Your task to perform on an android device: Do I have any events this weekend? Image 0: 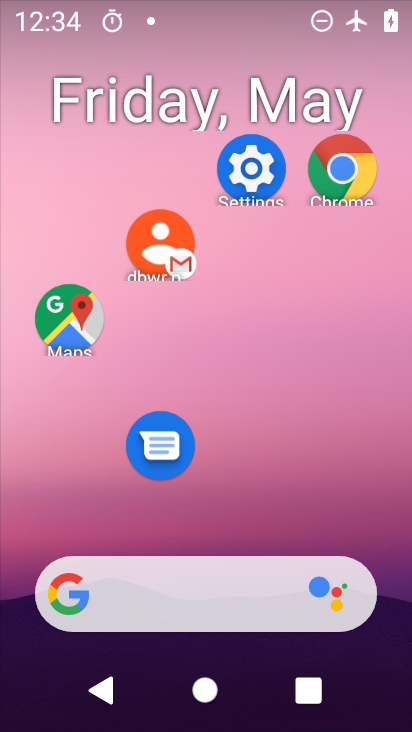
Step 0: click (287, 119)
Your task to perform on an android device: Do I have any events this weekend? Image 1: 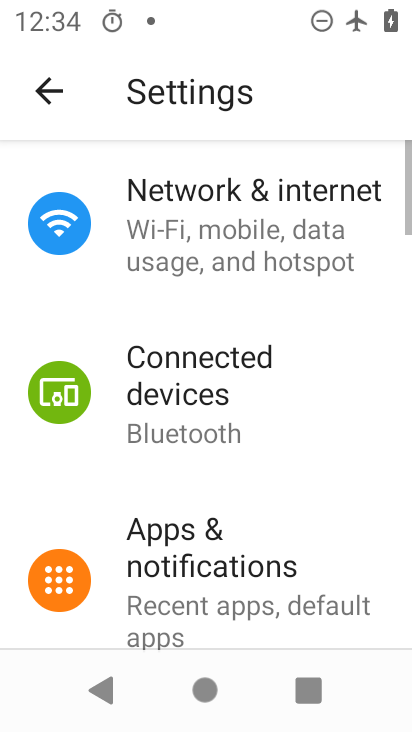
Step 1: drag from (205, 536) to (226, 200)
Your task to perform on an android device: Do I have any events this weekend? Image 2: 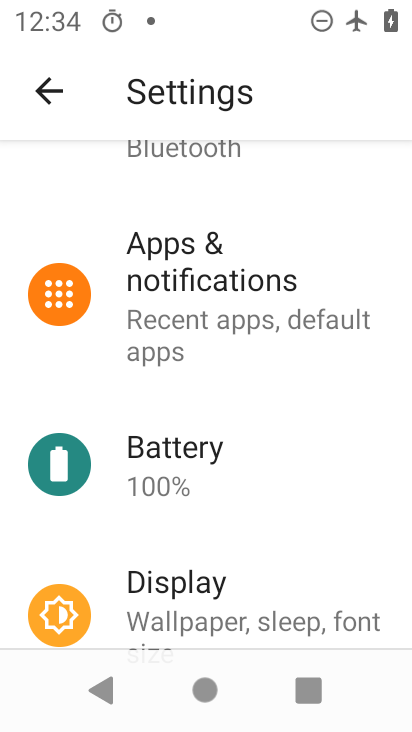
Step 2: drag from (239, 553) to (245, 215)
Your task to perform on an android device: Do I have any events this weekend? Image 3: 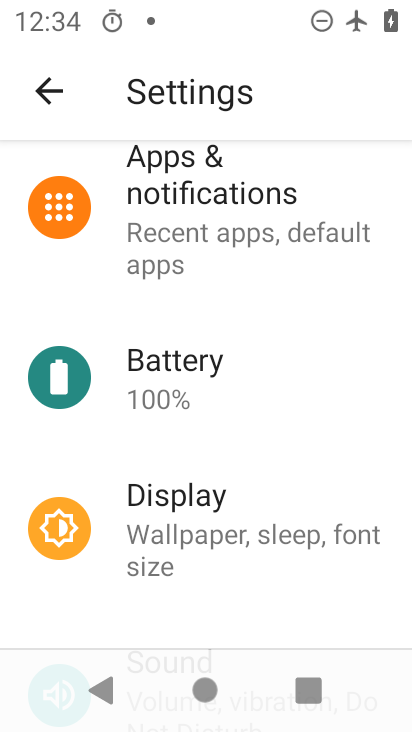
Step 3: press home button
Your task to perform on an android device: Do I have any events this weekend? Image 4: 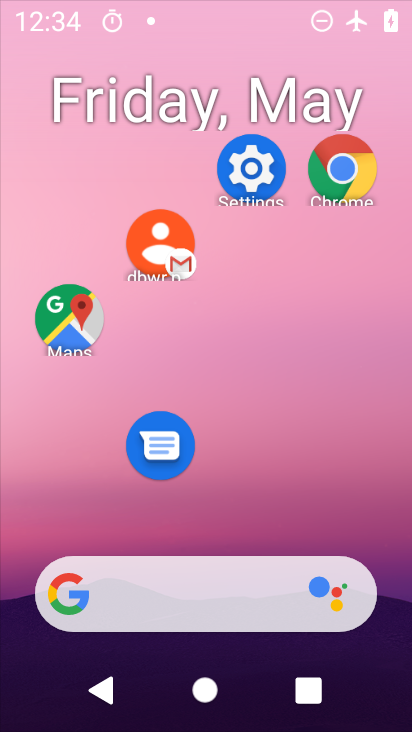
Step 4: drag from (218, 383) to (262, 129)
Your task to perform on an android device: Do I have any events this weekend? Image 5: 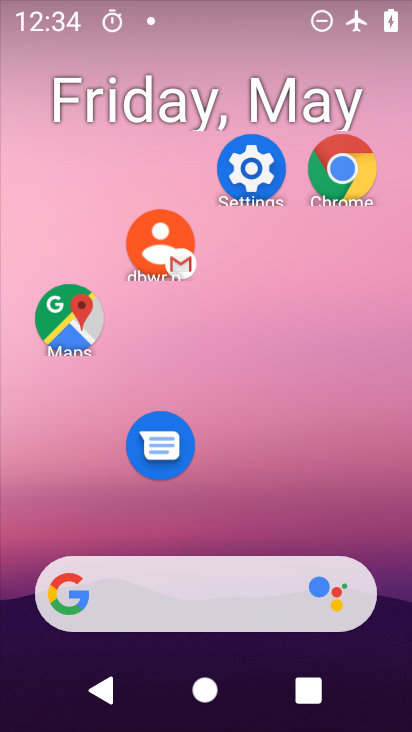
Step 5: drag from (208, 392) to (229, 172)
Your task to perform on an android device: Do I have any events this weekend? Image 6: 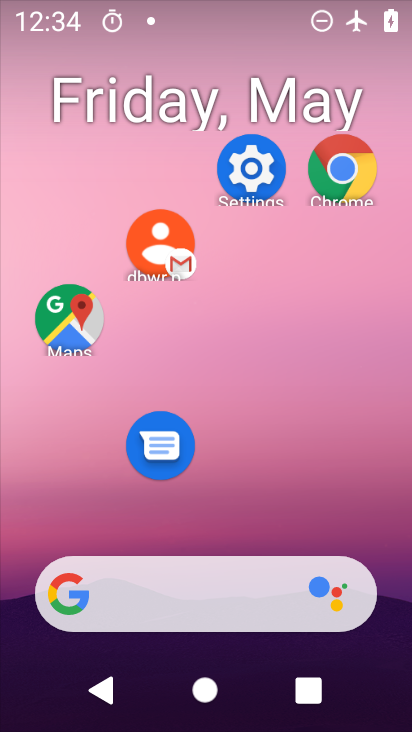
Step 6: drag from (212, 468) to (256, 76)
Your task to perform on an android device: Do I have any events this weekend? Image 7: 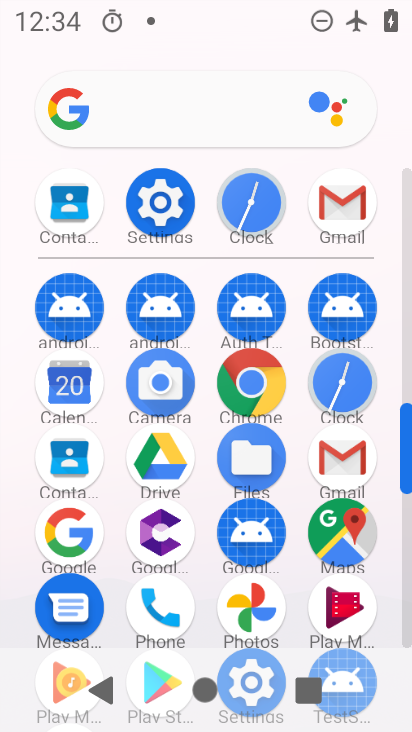
Step 7: click (58, 384)
Your task to perform on an android device: Do I have any events this weekend? Image 8: 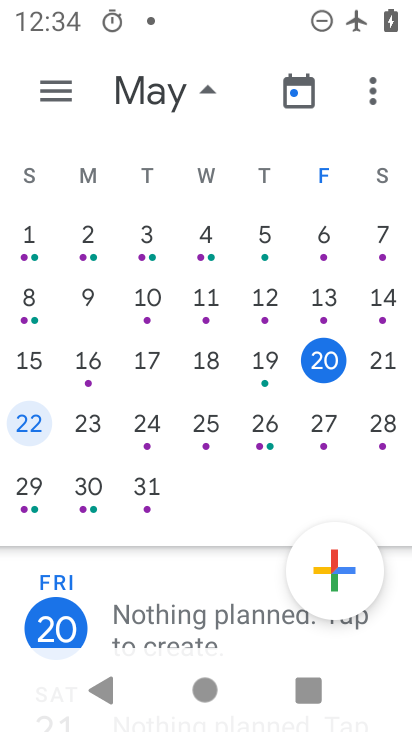
Step 8: click (306, 362)
Your task to perform on an android device: Do I have any events this weekend? Image 9: 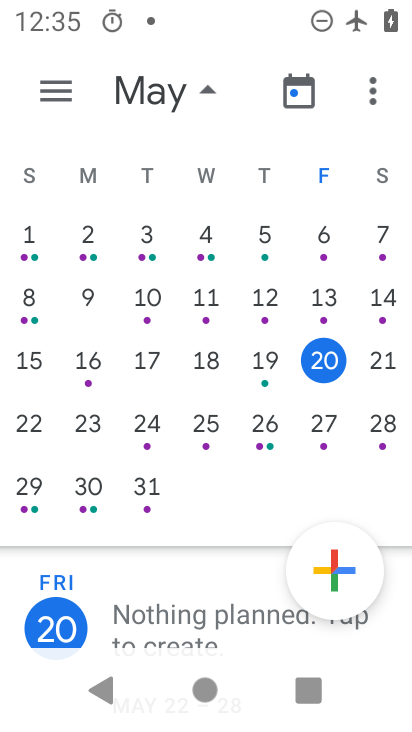
Step 9: click (195, 434)
Your task to perform on an android device: Do I have any events this weekend? Image 10: 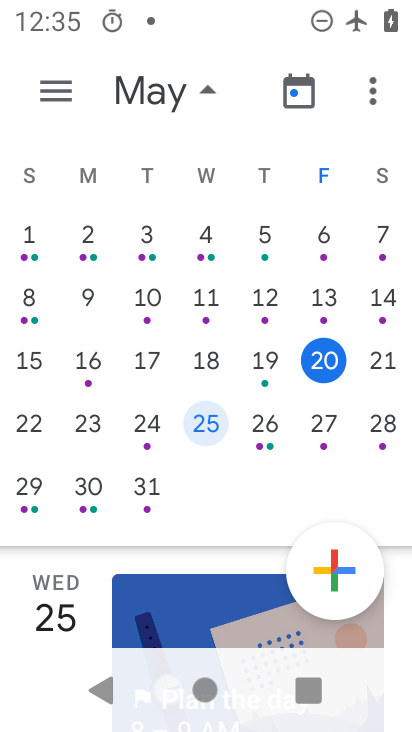
Step 10: task complete